Your task to perform on an android device: Go to Wikipedia Image 0: 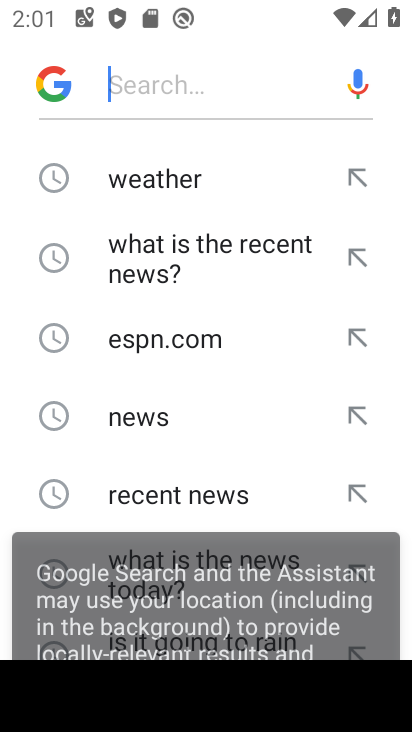
Step 0: press home button
Your task to perform on an android device: Go to Wikipedia Image 1: 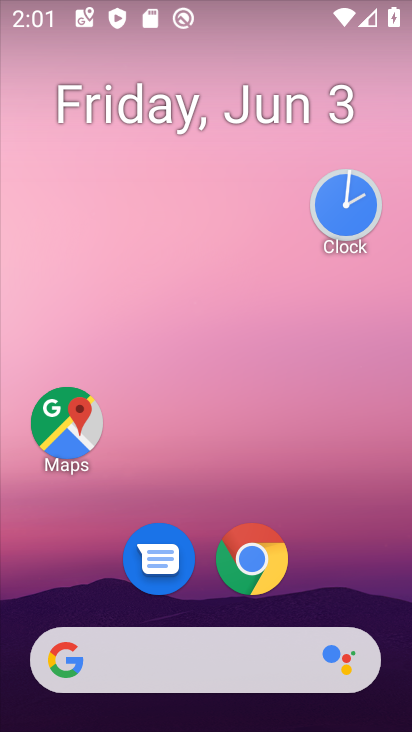
Step 1: click (269, 559)
Your task to perform on an android device: Go to Wikipedia Image 2: 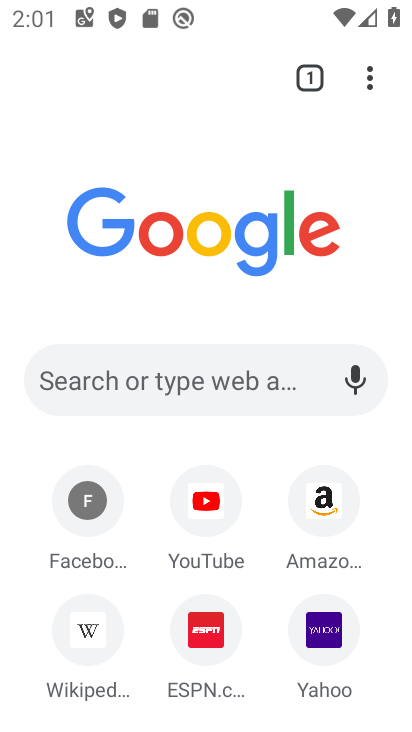
Step 2: click (97, 609)
Your task to perform on an android device: Go to Wikipedia Image 3: 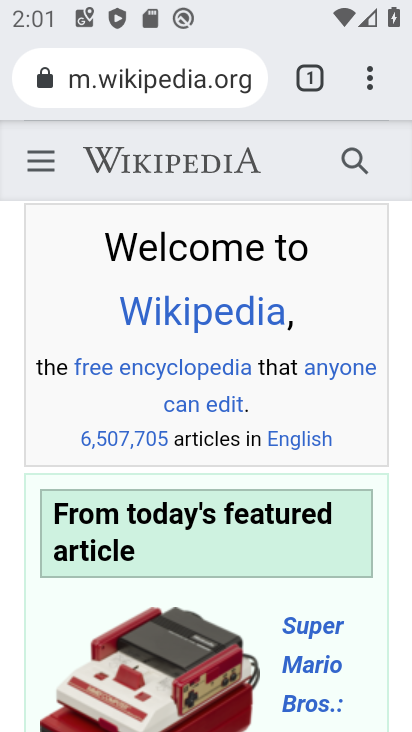
Step 3: task complete